Your task to perform on an android device: Open Amazon Image 0: 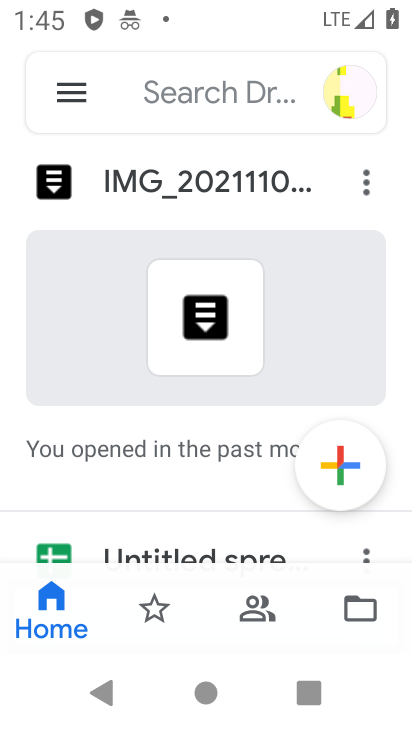
Step 0: press home button
Your task to perform on an android device: Open Amazon Image 1: 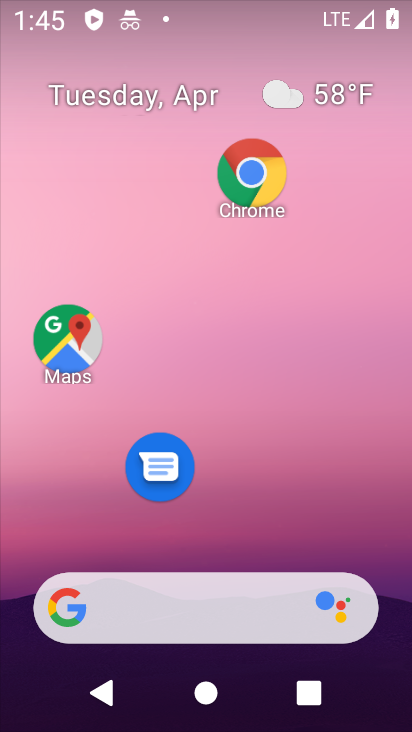
Step 1: drag from (194, 480) to (184, 50)
Your task to perform on an android device: Open Amazon Image 2: 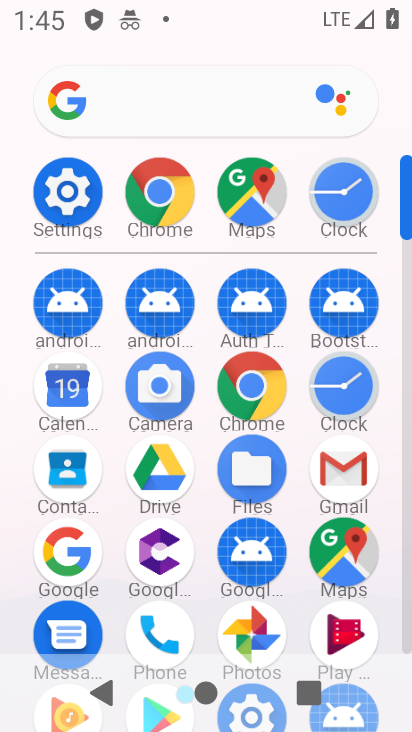
Step 2: click (251, 383)
Your task to perform on an android device: Open Amazon Image 3: 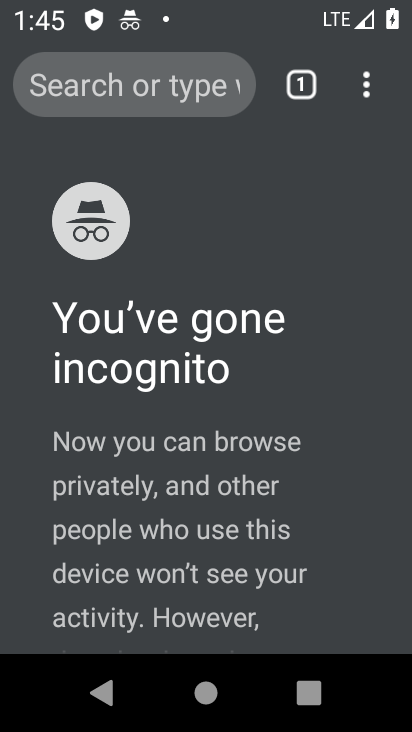
Step 3: click (365, 84)
Your task to perform on an android device: Open Amazon Image 4: 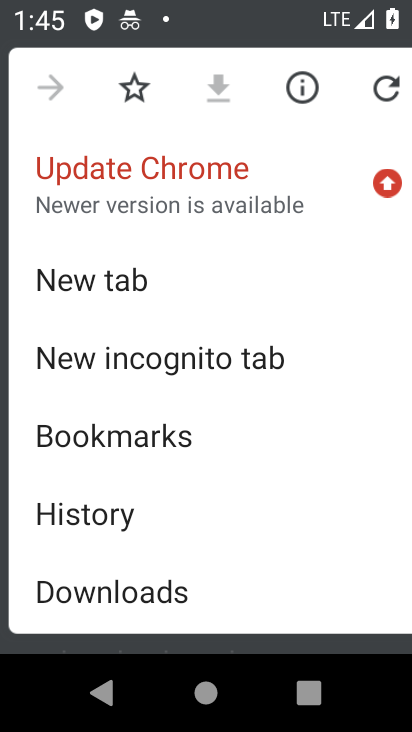
Step 4: drag from (258, 568) to (249, 110)
Your task to perform on an android device: Open Amazon Image 5: 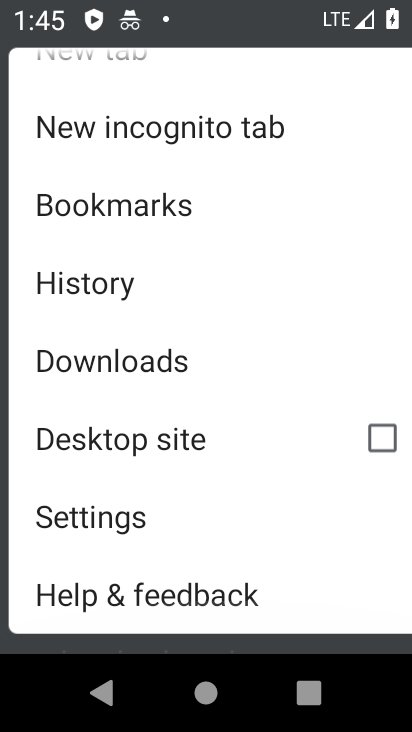
Step 5: drag from (220, 184) to (190, 574)
Your task to perform on an android device: Open Amazon Image 6: 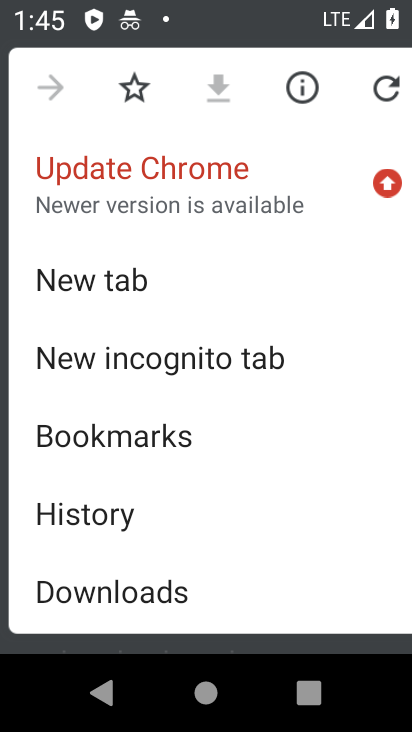
Step 6: click (134, 271)
Your task to perform on an android device: Open Amazon Image 7: 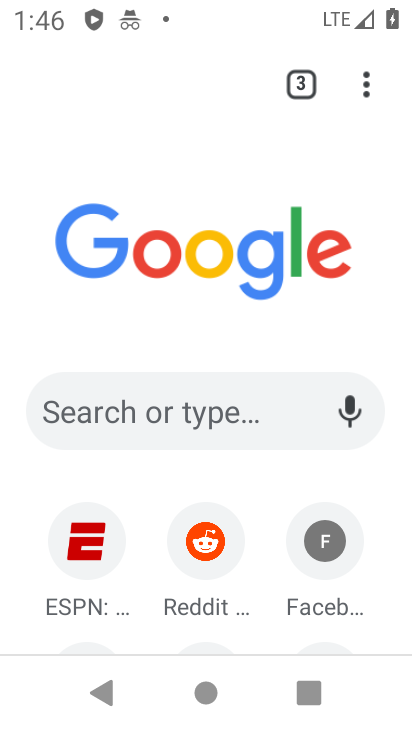
Step 7: drag from (240, 582) to (244, 220)
Your task to perform on an android device: Open Amazon Image 8: 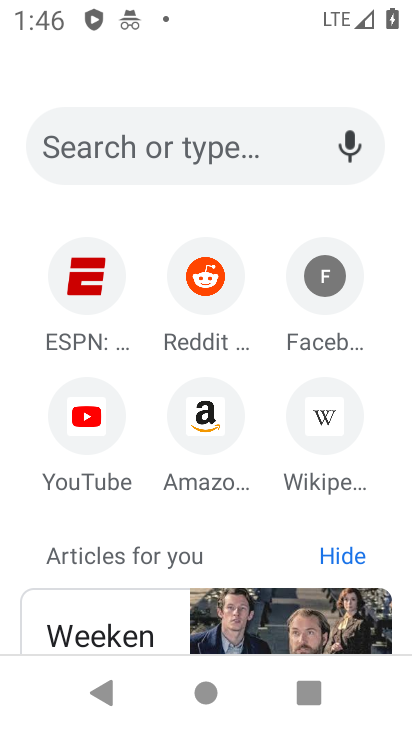
Step 8: click (202, 412)
Your task to perform on an android device: Open Amazon Image 9: 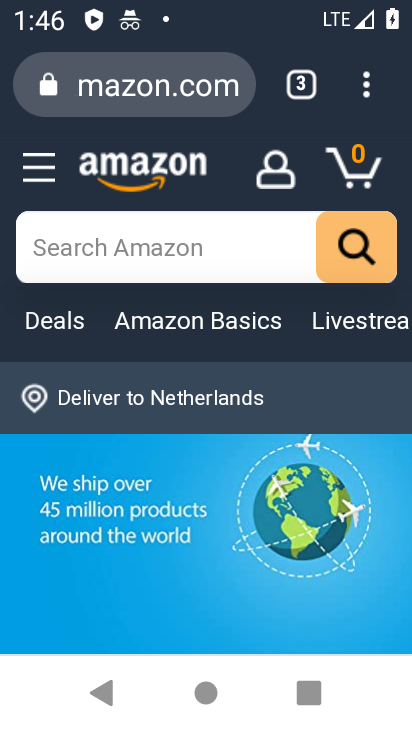
Step 9: task complete